Your task to perform on an android device: What is the recent news? Image 0: 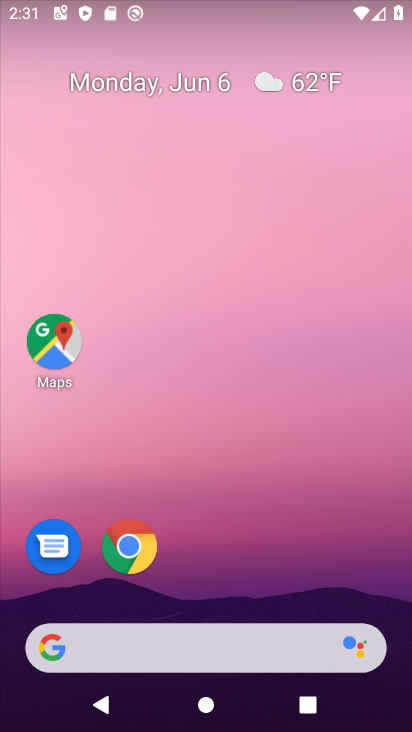
Step 0: drag from (213, 593) to (159, 180)
Your task to perform on an android device: What is the recent news? Image 1: 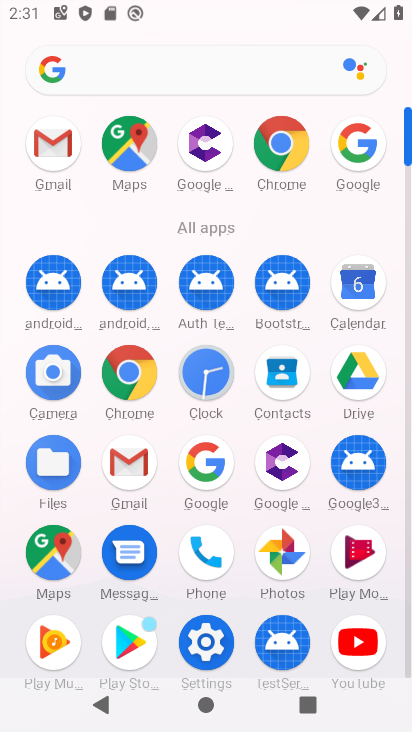
Step 1: click (192, 467)
Your task to perform on an android device: What is the recent news? Image 2: 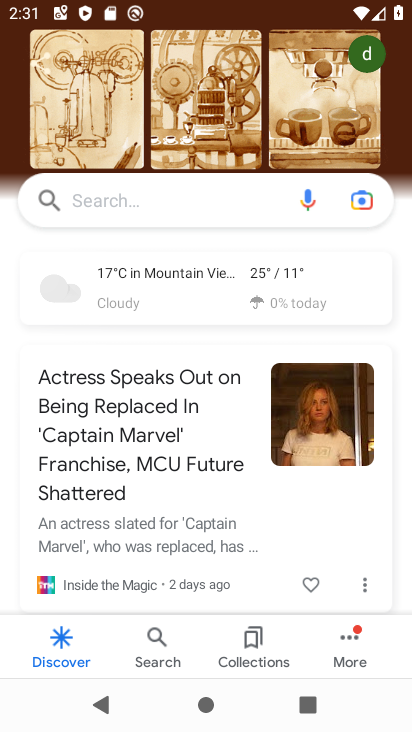
Step 2: click (96, 214)
Your task to perform on an android device: What is the recent news? Image 3: 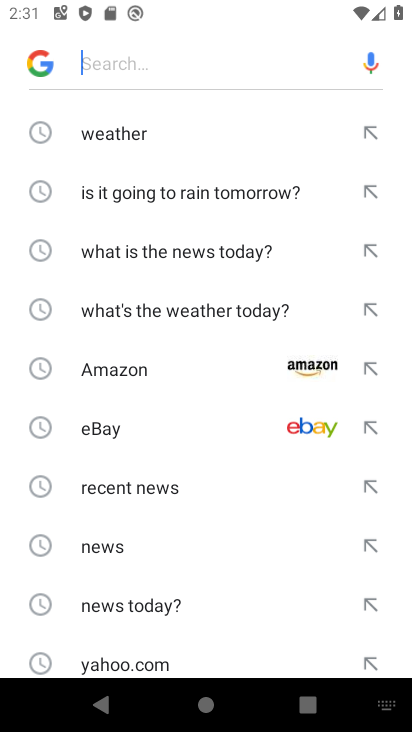
Step 3: click (110, 538)
Your task to perform on an android device: What is the recent news? Image 4: 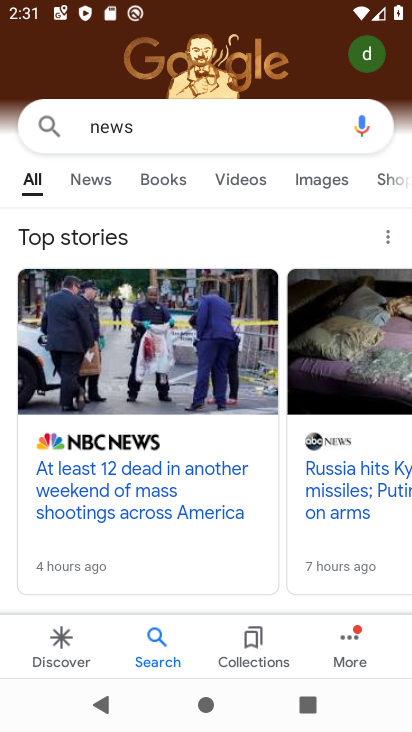
Step 4: click (89, 187)
Your task to perform on an android device: What is the recent news? Image 5: 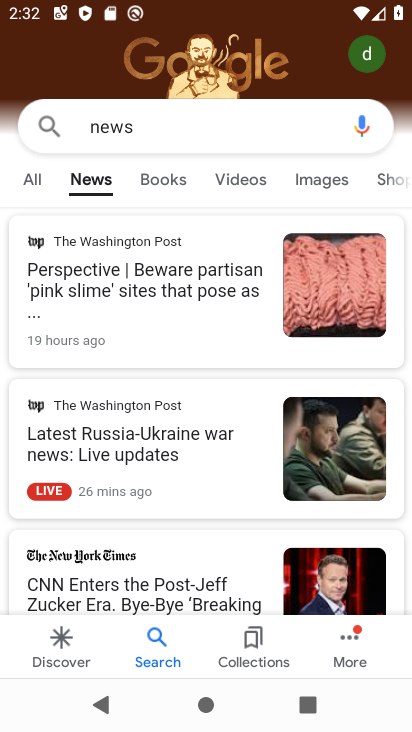
Step 5: task complete